Your task to perform on an android device: Go to CNN.com Image 0: 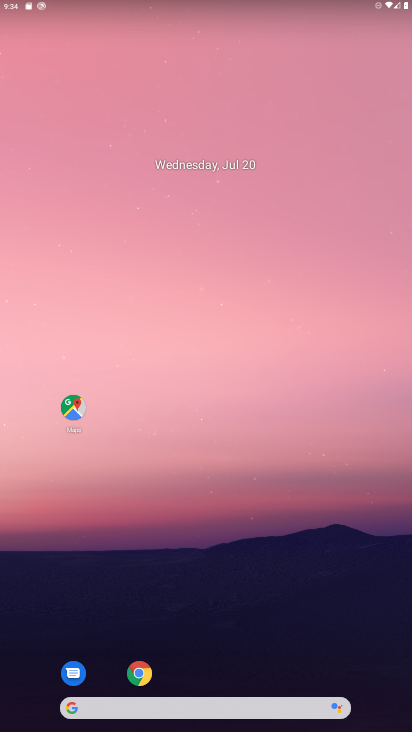
Step 0: drag from (184, 671) to (244, 155)
Your task to perform on an android device: Go to CNN.com Image 1: 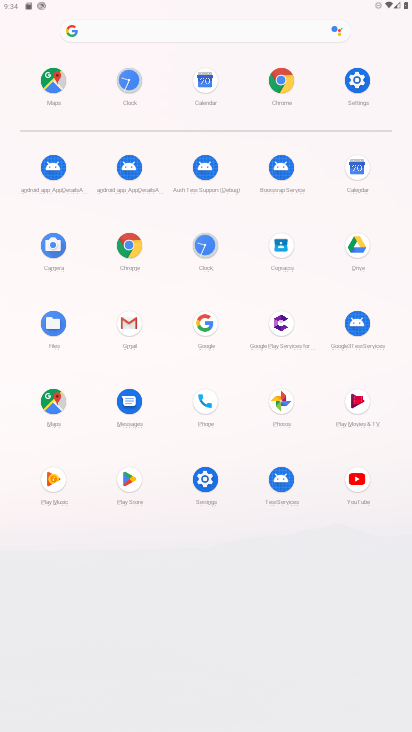
Step 1: click (177, 31)
Your task to perform on an android device: Go to CNN.com Image 2: 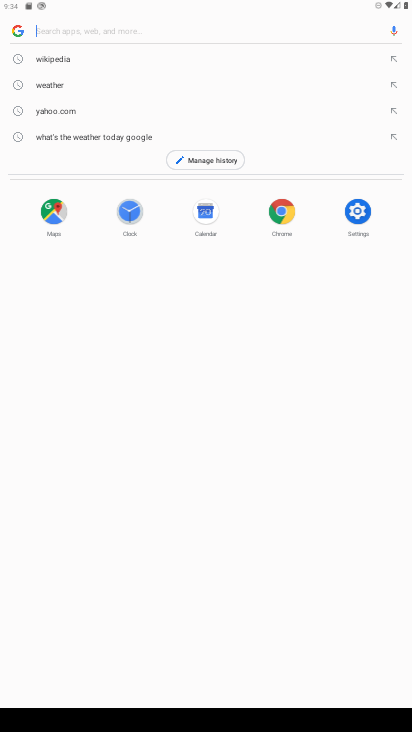
Step 2: type "cnn.com"
Your task to perform on an android device: Go to CNN.com Image 3: 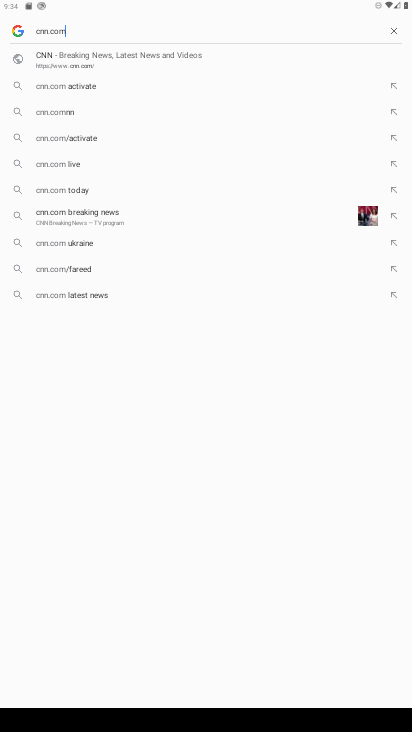
Step 3: click (123, 61)
Your task to perform on an android device: Go to CNN.com Image 4: 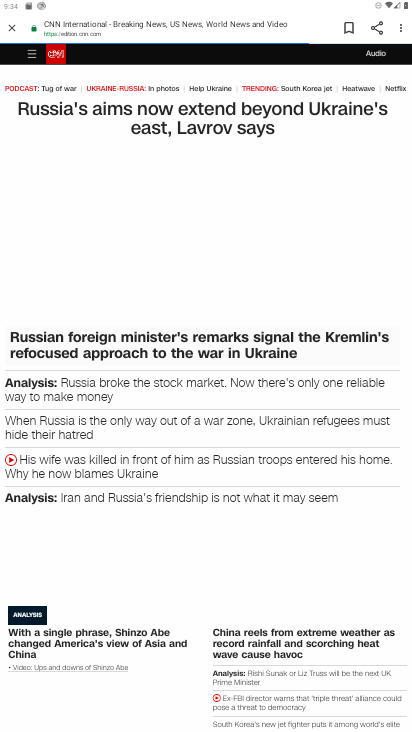
Step 4: task complete